Your task to perform on an android device: Open Google Maps Image 0: 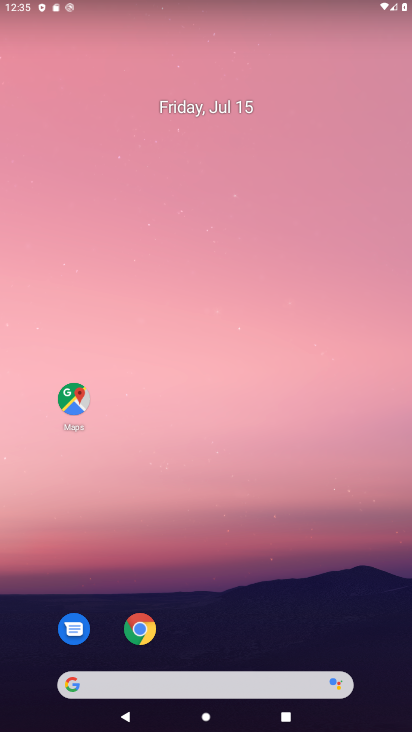
Step 0: drag from (269, 209) to (285, 46)
Your task to perform on an android device: Open Google Maps Image 1: 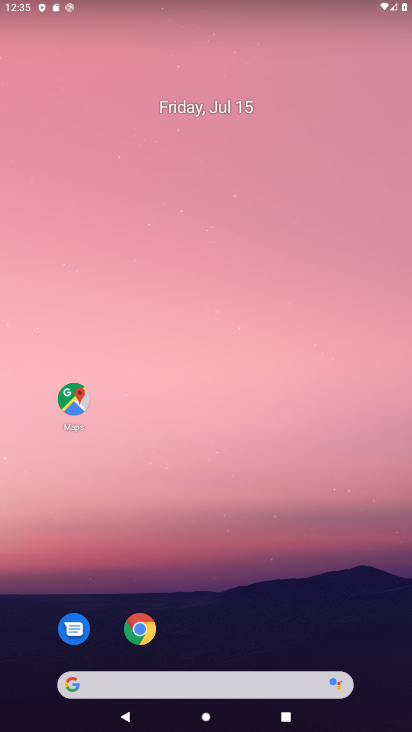
Step 1: drag from (246, 414) to (273, 76)
Your task to perform on an android device: Open Google Maps Image 2: 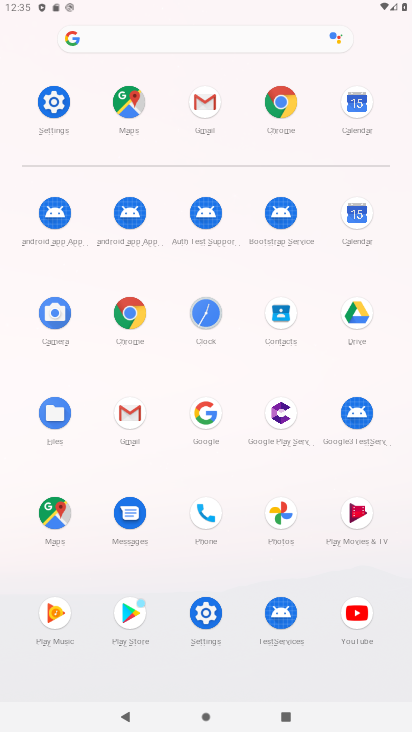
Step 2: click (133, 98)
Your task to perform on an android device: Open Google Maps Image 3: 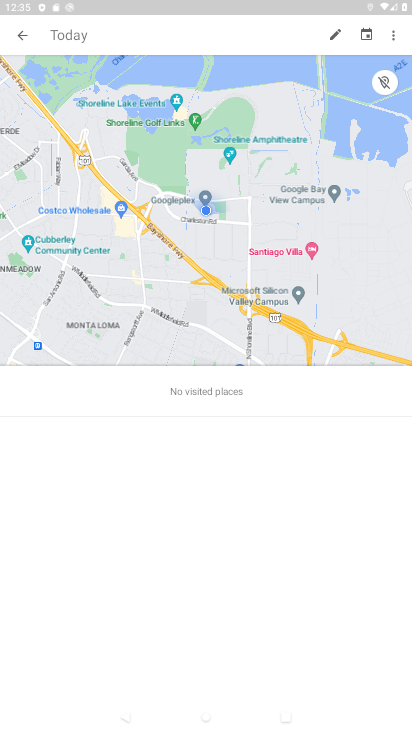
Step 3: task complete